Your task to perform on an android device: What's the weather? Image 0: 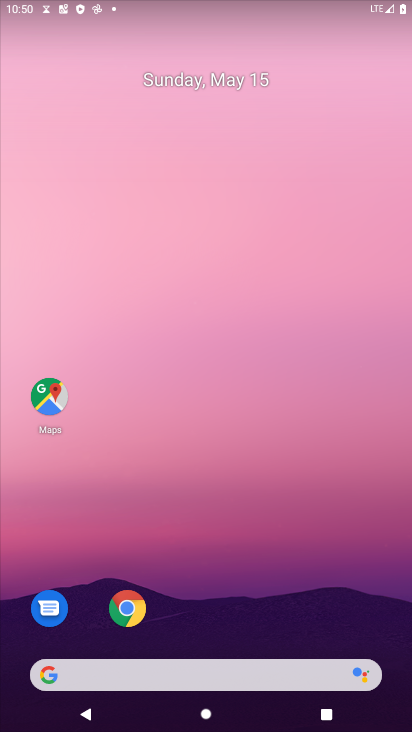
Step 0: drag from (302, 612) to (265, 108)
Your task to perform on an android device: What's the weather? Image 1: 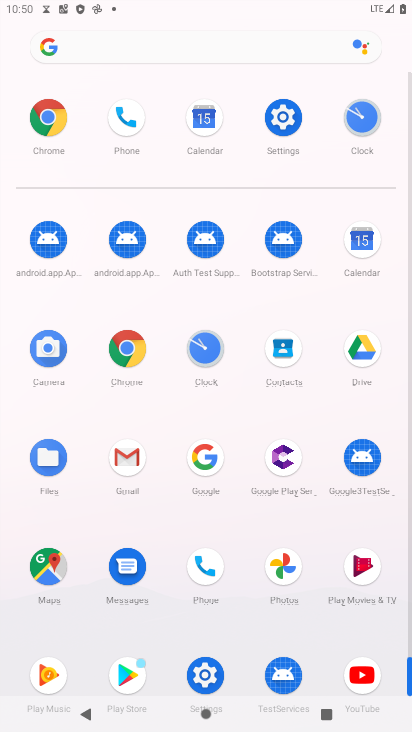
Step 1: press home button
Your task to perform on an android device: What's the weather? Image 2: 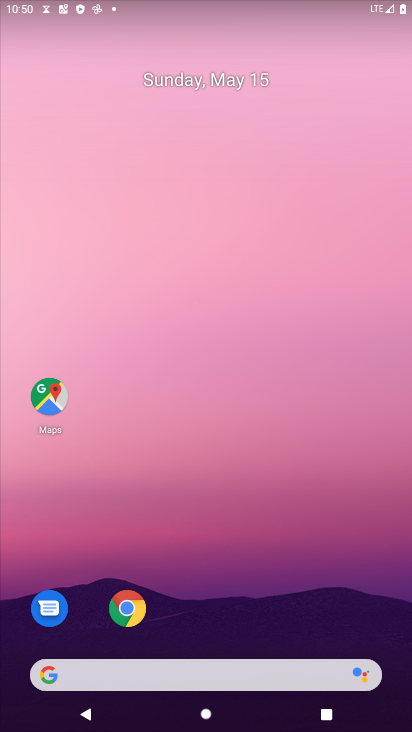
Step 2: click (56, 674)
Your task to perform on an android device: What's the weather? Image 3: 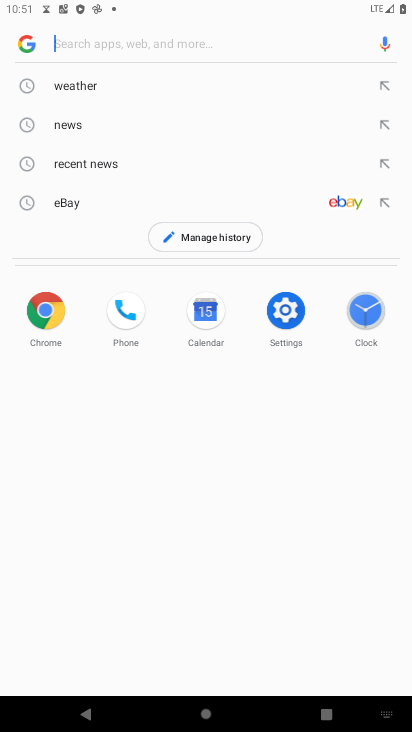
Step 3: press home button
Your task to perform on an android device: What's the weather? Image 4: 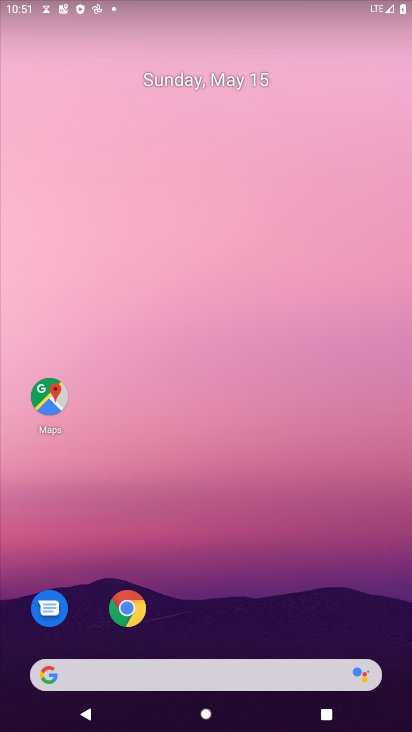
Step 4: click (57, 674)
Your task to perform on an android device: What's the weather? Image 5: 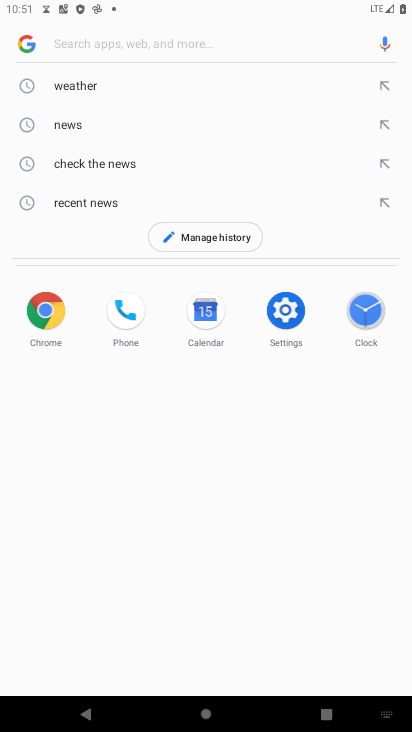
Step 5: click (27, 37)
Your task to perform on an android device: What's the weather? Image 6: 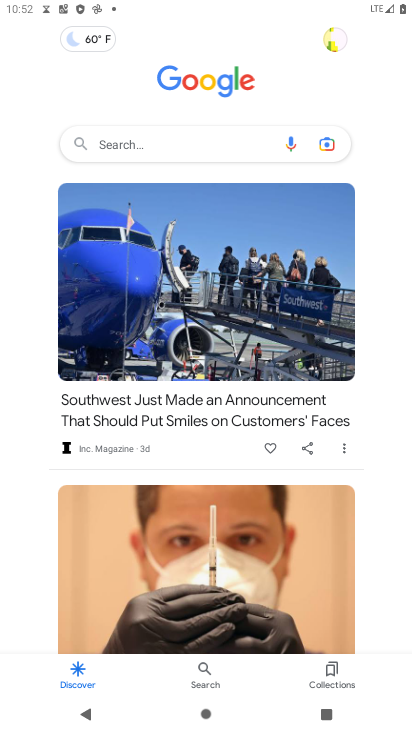
Step 6: click (83, 43)
Your task to perform on an android device: What's the weather? Image 7: 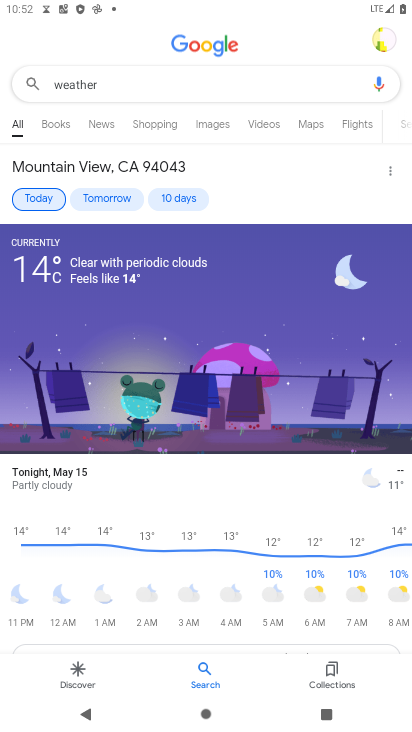
Step 7: task complete